Your task to perform on an android device: Open privacy settings Image 0: 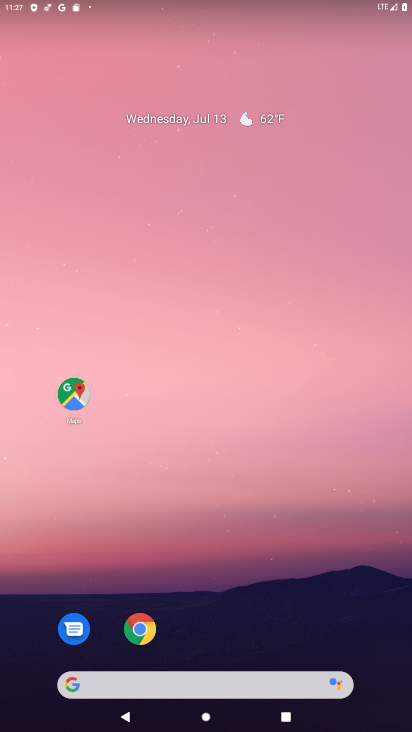
Step 0: press home button
Your task to perform on an android device: Open privacy settings Image 1: 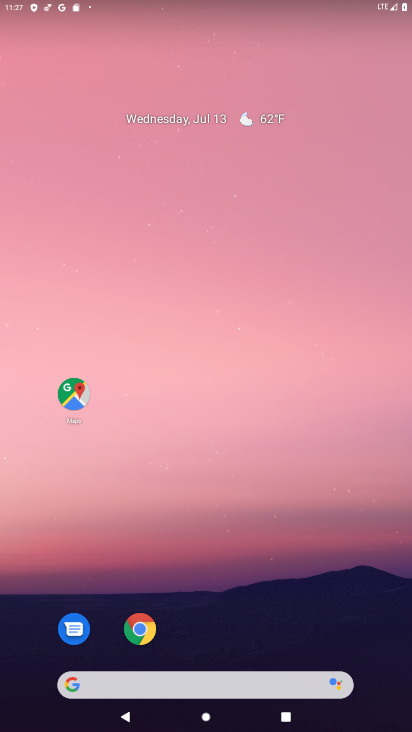
Step 1: drag from (208, 634) to (161, 5)
Your task to perform on an android device: Open privacy settings Image 2: 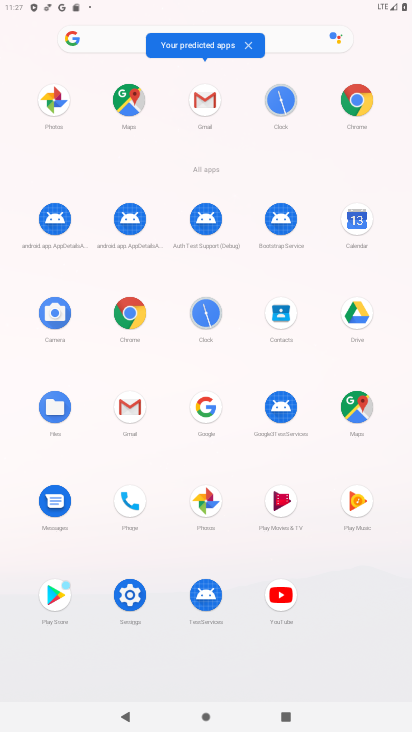
Step 2: click (125, 601)
Your task to perform on an android device: Open privacy settings Image 3: 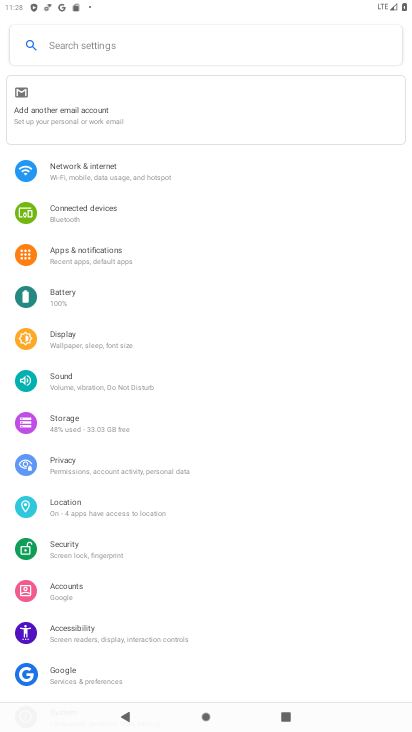
Step 3: click (89, 475)
Your task to perform on an android device: Open privacy settings Image 4: 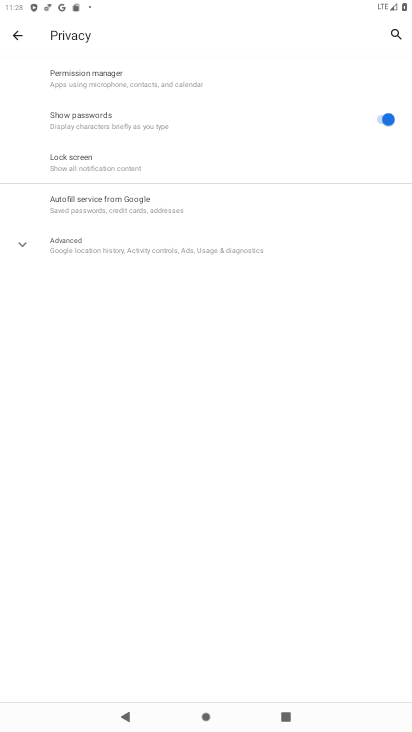
Step 4: task complete